Your task to perform on an android device: change the clock display to analog Image 0: 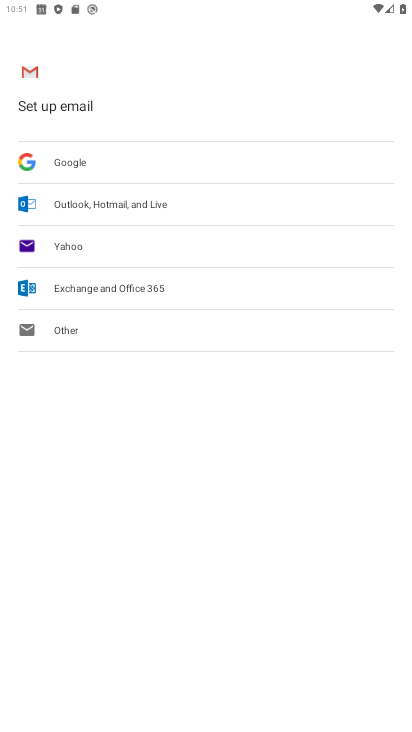
Step 0: press home button
Your task to perform on an android device: change the clock display to analog Image 1: 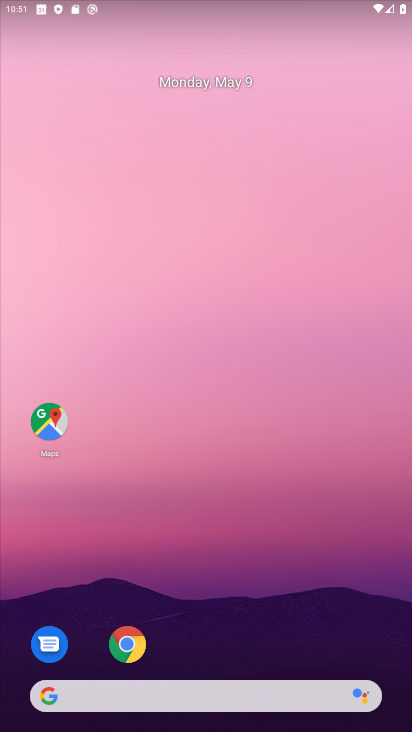
Step 1: drag from (220, 639) to (228, 245)
Your task to perform on an android device: change the clock display to analog Image 2: 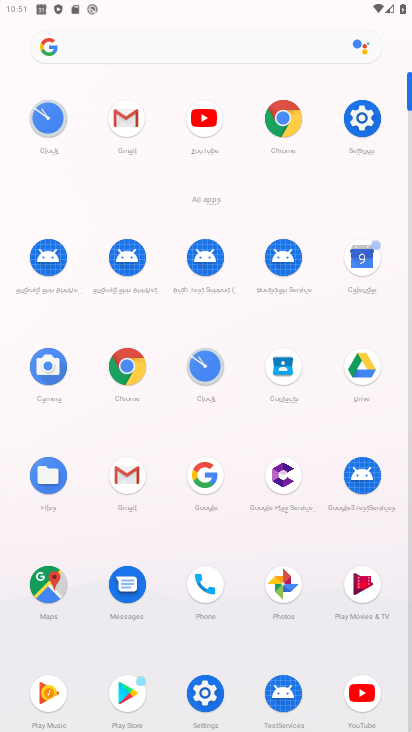
Step 2: click (216, 387)
Your task to perform on an android device: change the clock display to analog Image 3: 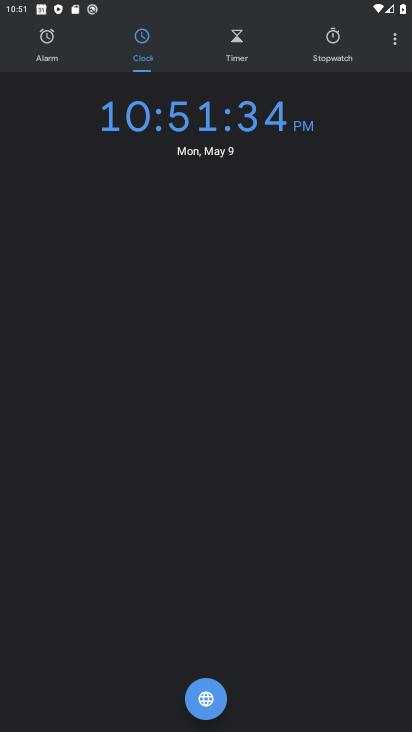
Step 3: click (398, 52)
Your task to perform on an android device: change the clock display to analog Image 4: 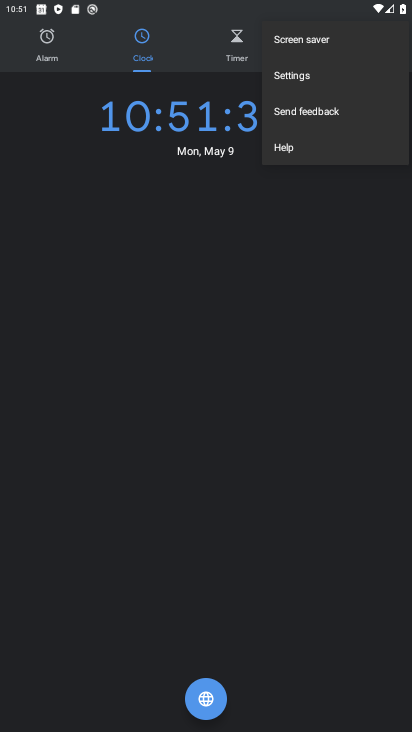
Step 4: click (285, 81)
Your task to perform on an android device: change the clock display to analog Image 5: 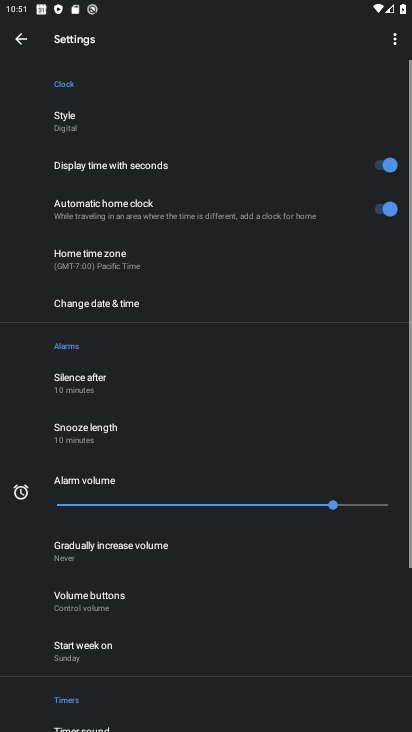
Step 5: click (73, 129)
Your task to perform on an android device: change the clock display to analog Image 6: 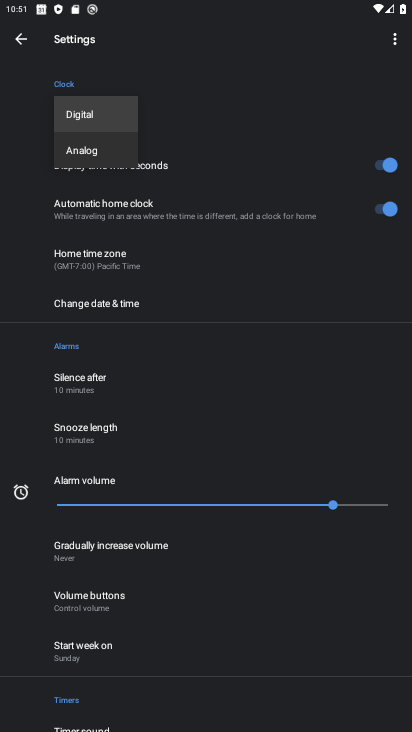
Step 6: click (71, 153)
Your task to perform on an android device: change the clock display to analog Image 7: 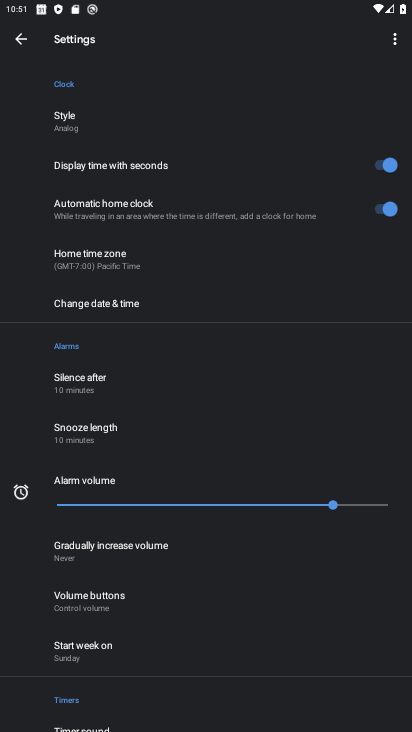
Step 7: task complete